Your task to perform on an android device: turn off notifications in google photos Image 0: 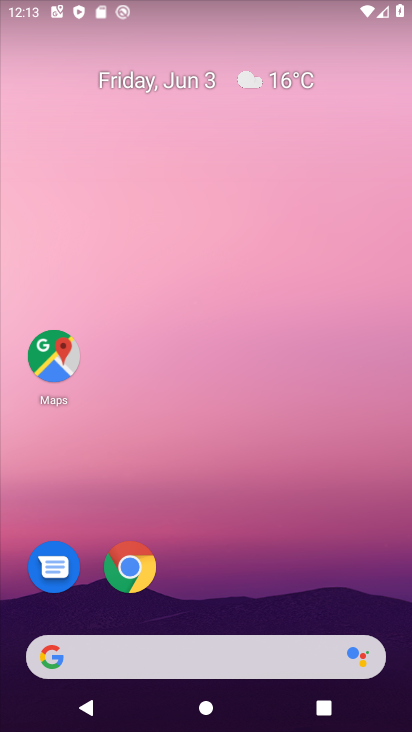
Step 0: drag from (269, 603) to (329, 202)
Your task to perform on an android device: turn off notifications in google photos Image 1: 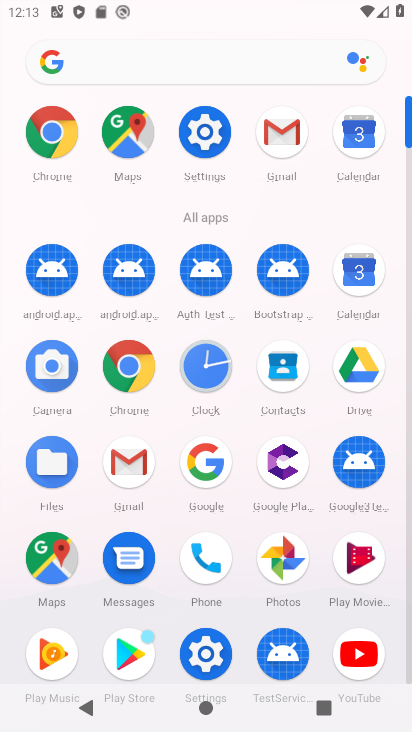
Step 1: click (282, 570)
Your task to perform on an android device: turn off notifications in google photos Image 2: 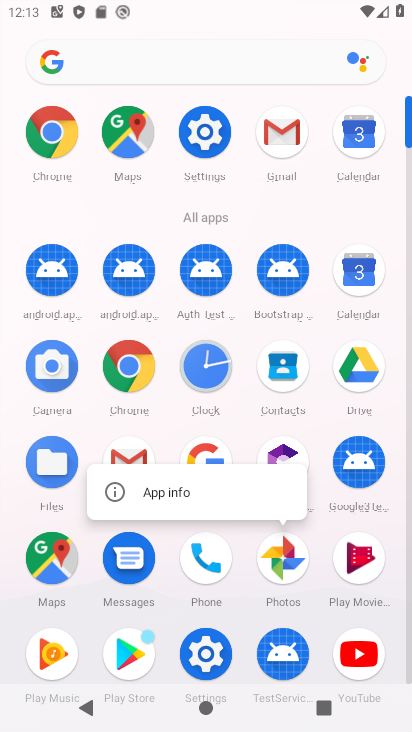
Step 2: click (228, 486)
Your task to perform on an android device: turn off notifications in google photos Image 3: 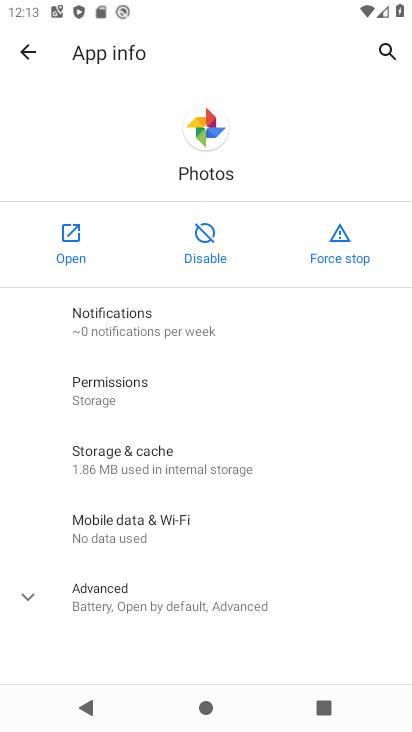
Step 3: click (207, 313)
Your task to perform on an android device: turn off notifications in google photos Image 4: 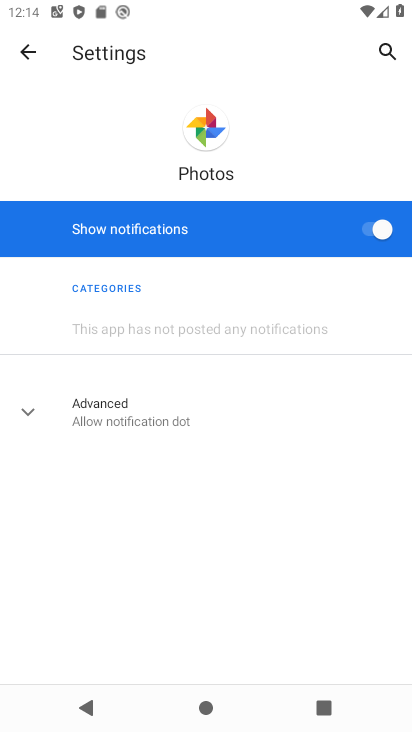
Step 4: click (379, 233)
Your task to perform on an android device: turn off notifications in google photos Image 5: 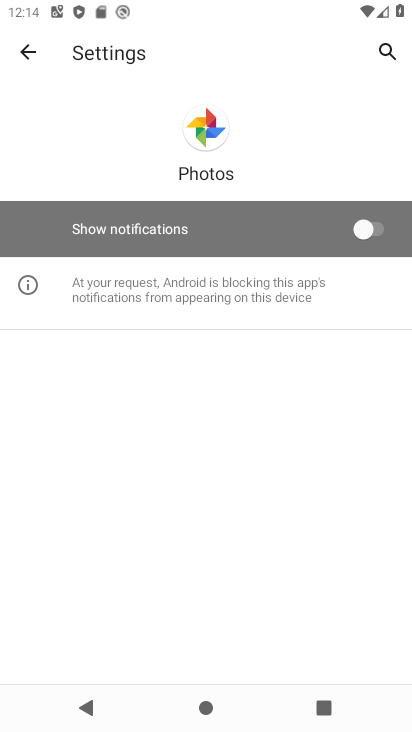
Step 5: task complete